Your task to perform on an android device: turn off airplane mode Image 0: 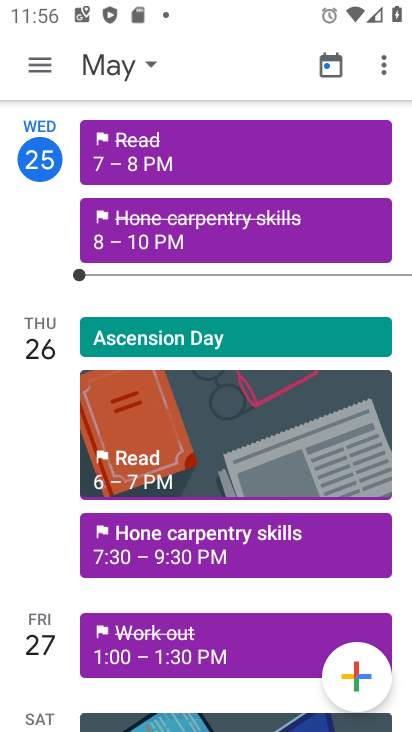
Step 0: press home button
Your task to perform on an android device: turn off airplane mode Image 1: 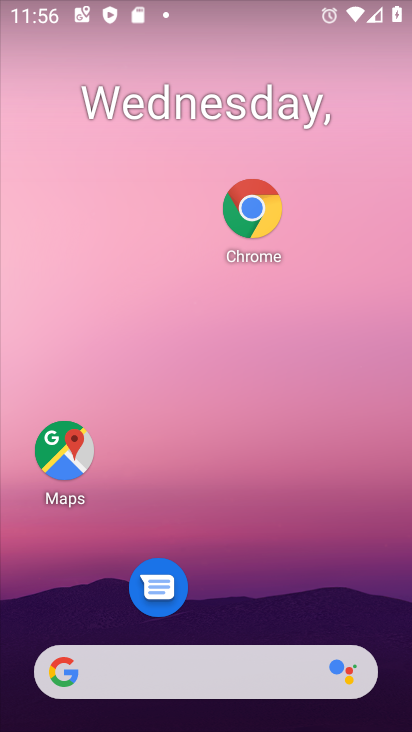
Step 1: drag from (227, 619) to (212, 129)
Your task to perform on an android device: turn off airplane mode Image 2: 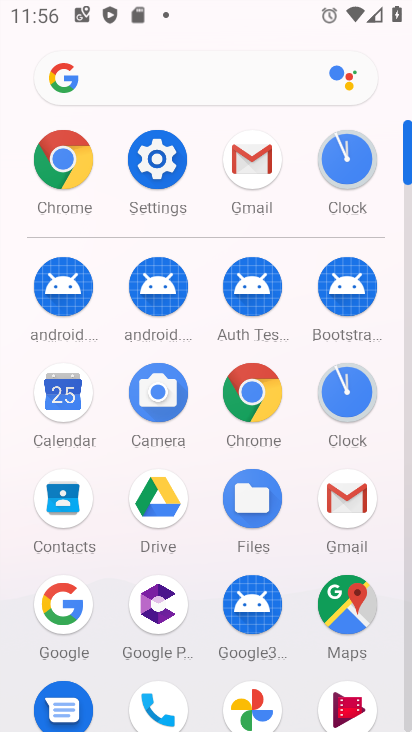
Step 2: click (157, 155)
Your task to perform on an android device: turn off airplane mode Image 3: 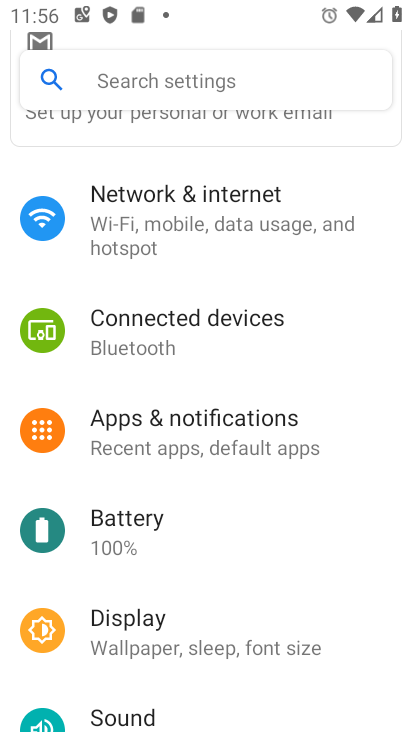
Step 3: click (187, 220)
Your task to perform on an android device: turn off airplane mode Image 4: 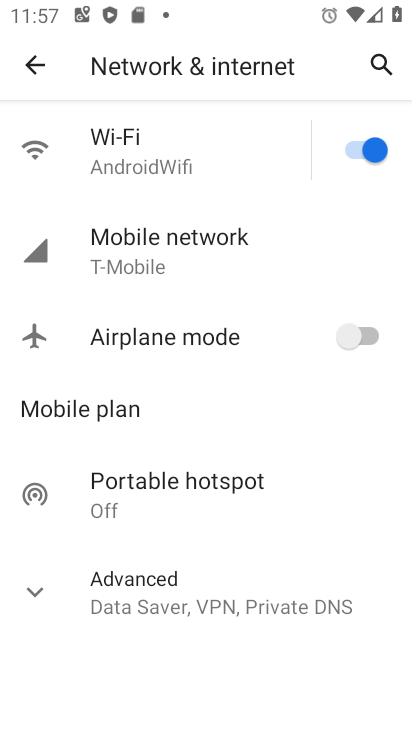
Step 4: task complete